Your task to perform on an android device: See recent photos Image 0: 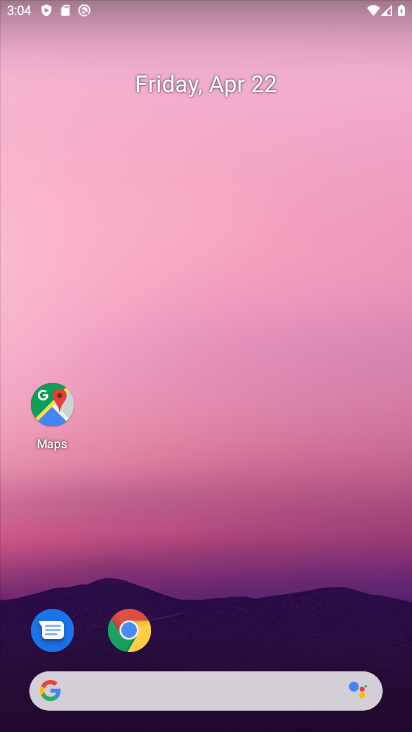
Step 0: drag from (238, 616) to (391, 15)
Your task to perform on an android device: See recent photos Image 1: 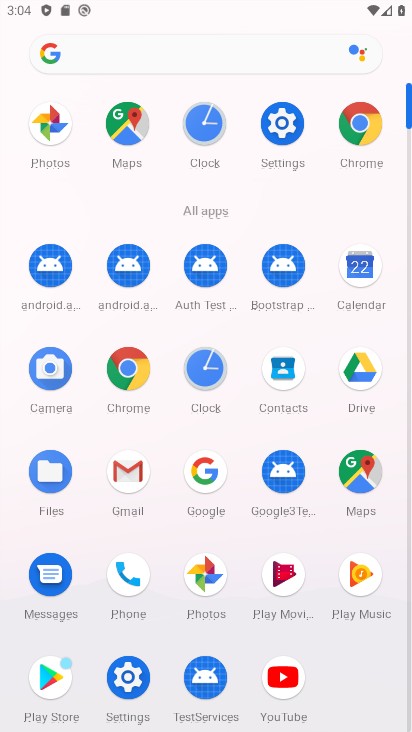
Step 1: click (198, 575)
Your task to perform on an android device: See recent photos Image 2: 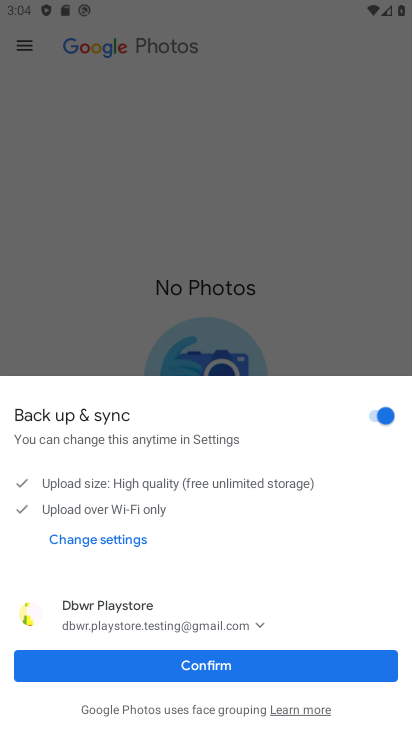
Step 2: click (206, 660)
Your task to perform on an android device: See recent photos Image 3: 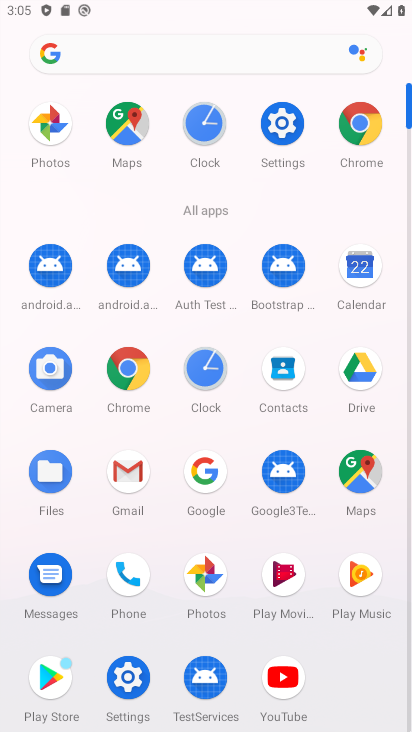
Step 3: click (211, 591)
Your task to perform on an android device: See recent photos Image 4: 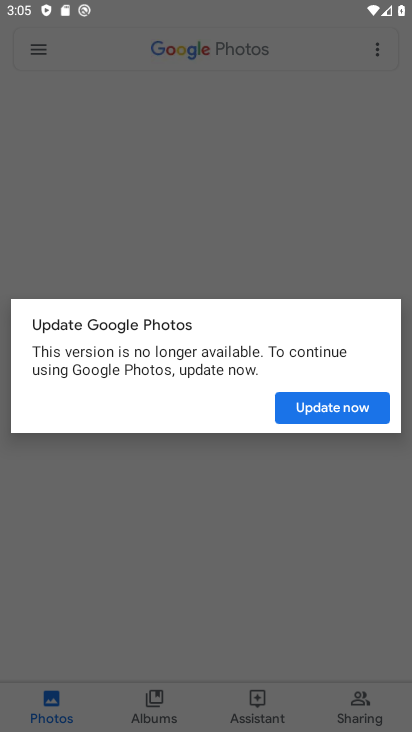
Step 4: click (346, 410)
Your task to perform on an android device: See recent photos Image 5: 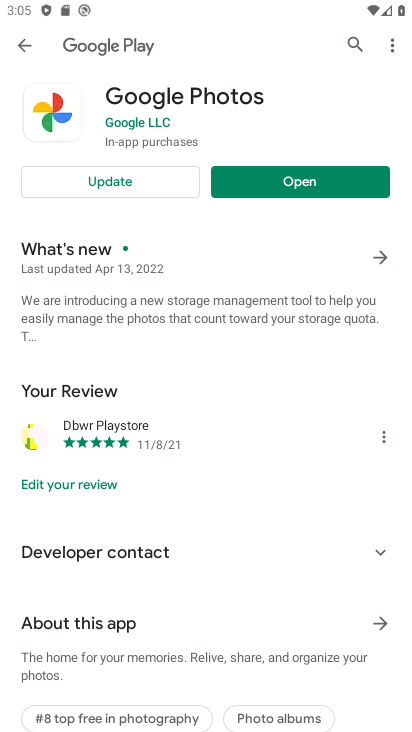
Step 5: click (296, 176)
Your task to perform on an android device: See recent photos Image 6: 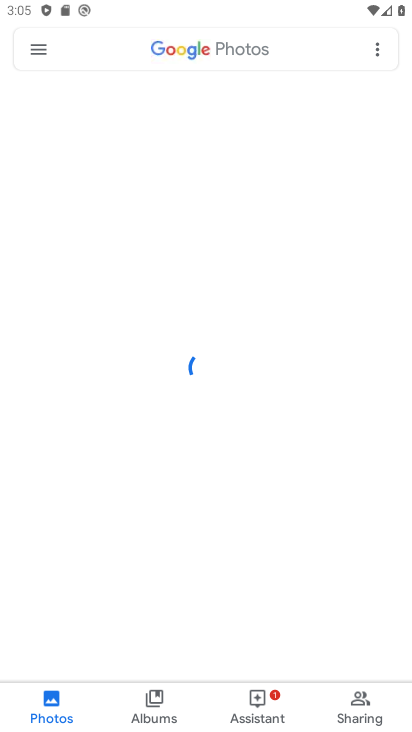
Step 6: drag from (94, 590) to (168, 156)
Your task to perform on an android device: See recent photos Image 7: 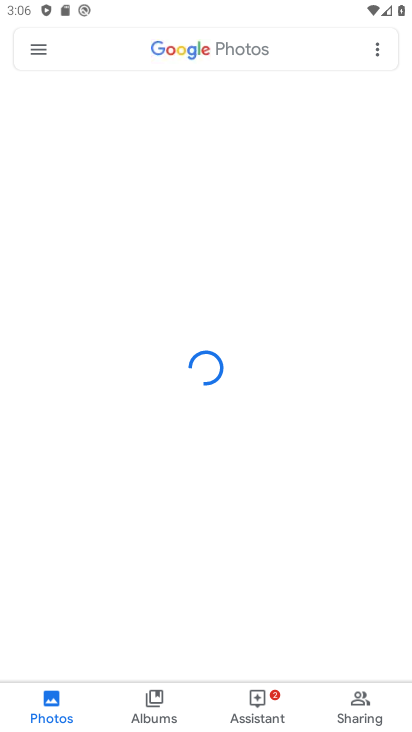
Step 7: drag from (199, 238) to (183, 592)
Your task to perform on an android device: See recent photos Image 8: 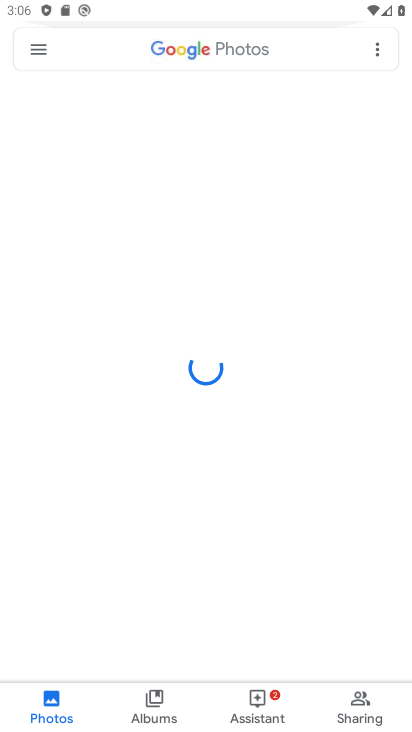
Step 8: drag from (181, 492) to (198, 267)
Your task to perform on an android device: See recent photos Image 9: 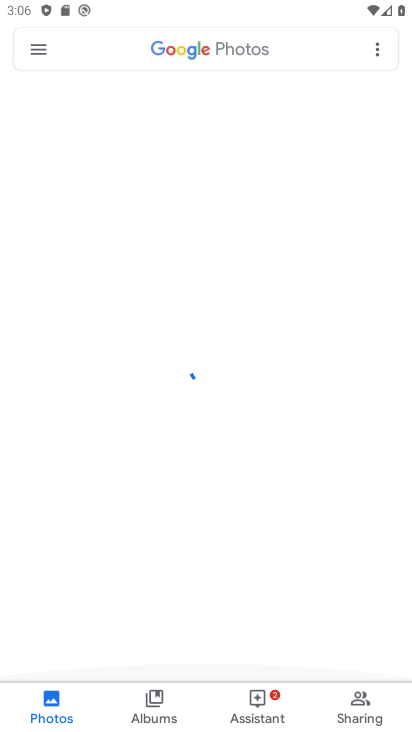
Step 9: click (36, 41)
Your task to perform on an android device: See recent photos Image 10: 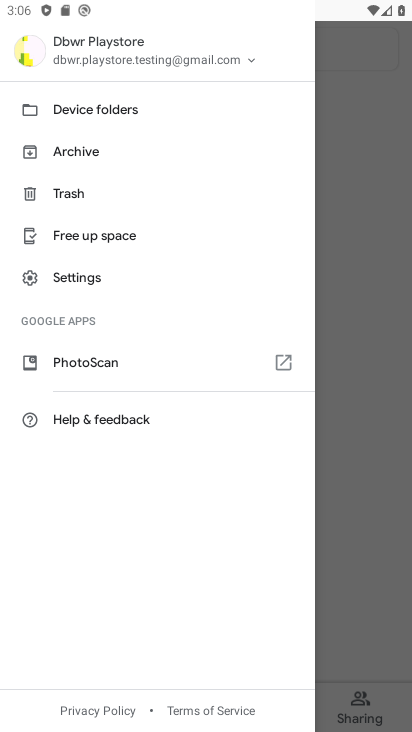
Step 10: click (357, 274)
Your task to perform on an android device: See recent photos Image 11: 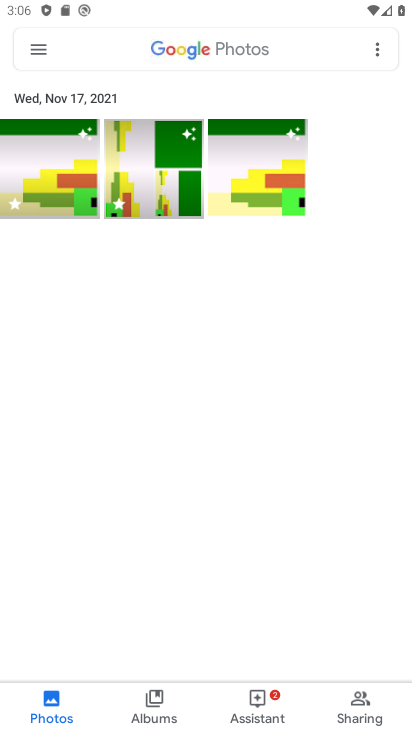
Step 11: task complete